Your task to perform on an android device: Open settings Image 0: 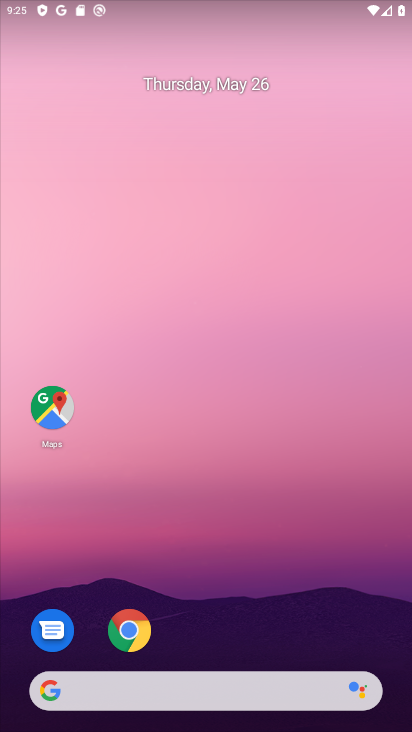
Step 0: drag from (281, 668) to (213, 161)
Your task to perform on an android device: Open settings Image 1: 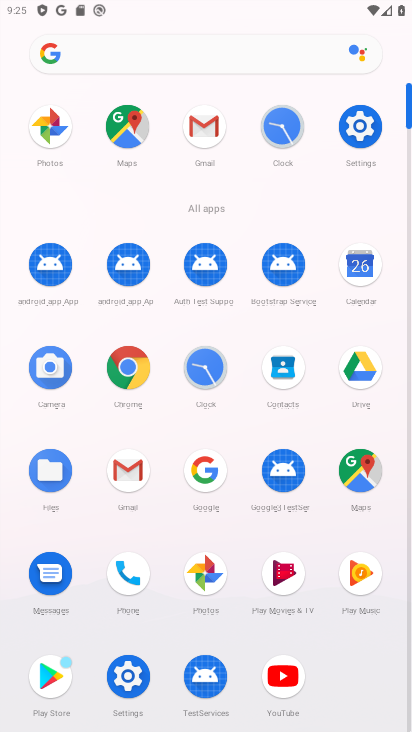
Step 1: click (342, 126)
Your task to perform on an android device: Open settings Image 2: 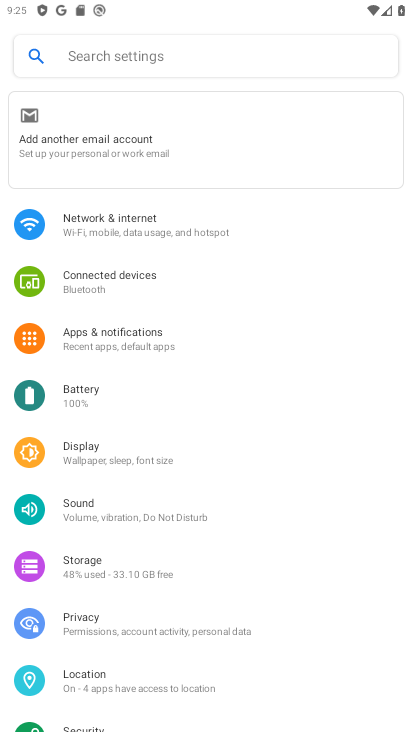
Step 2: click (75, 512)
Your task to perform on an android device: Open settings Image 3: 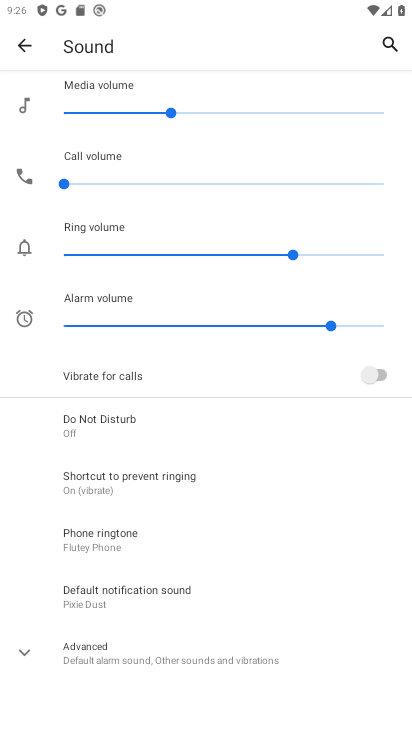
Step 3: task complete